Your task to perform on an android device: change your default location settings in chrome Image 0: 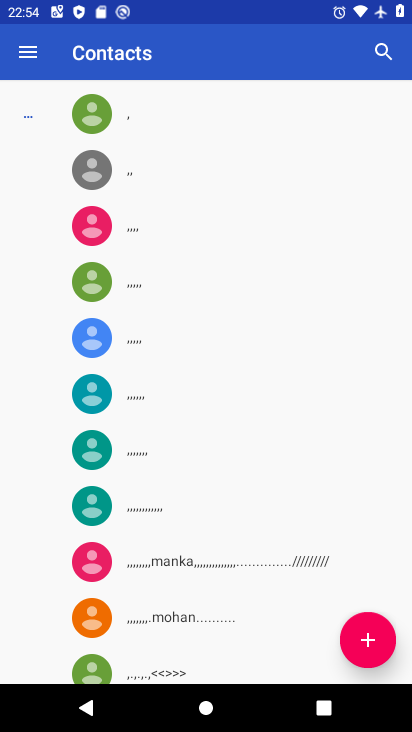
Step 0: press home button
Your task to perform on an android device: change your default location settings in chrome Image 1: 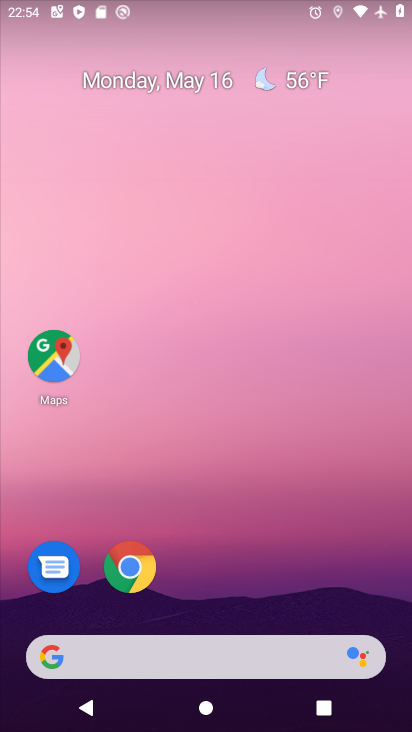
Step 1: drag from (247, 542) to (312, 262)
Your task to perform on an android device: change your default location settings in chrome Image 2: 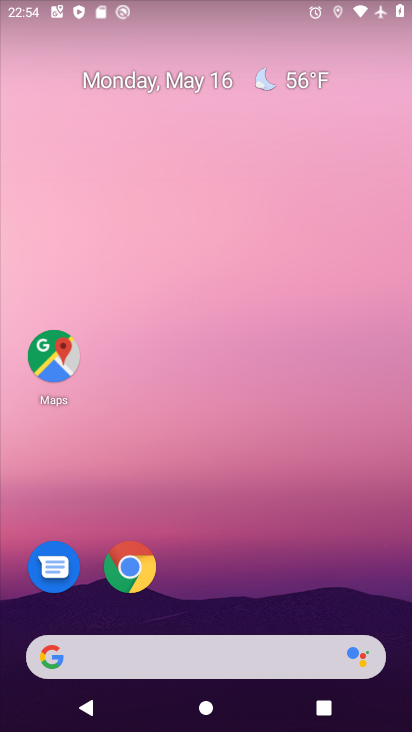
Step 2: drag from (252, 638) to (344, 200)
Your task to perform on an android device: change your default location settings in chrome Image 3: 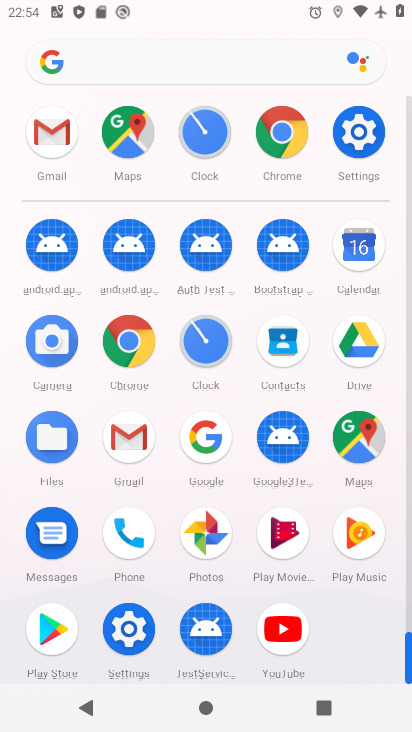
Step 3: click (265, 134)
Your task to perform on an android device: change your default location settings in chrome Image 4: 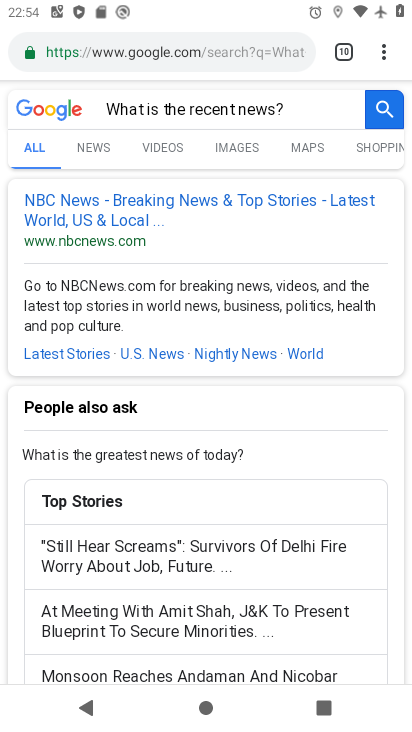
Step 4: click (382, 54)
Your task to perform on an android device: change your default location settings in chrome Image 5: 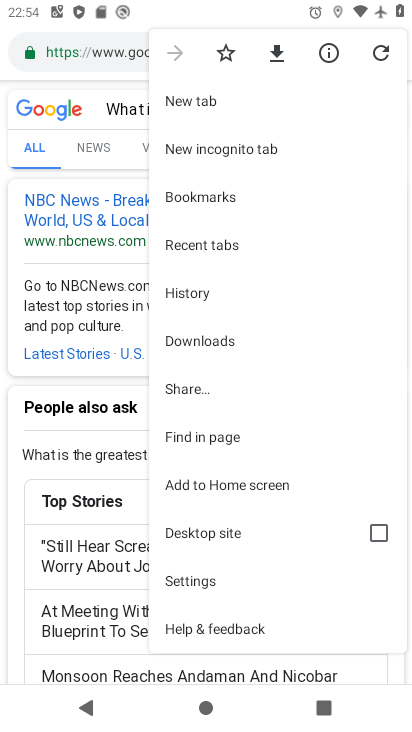
Step 5: click (201, 582)
Your task to perform on an android device: change your default location settings in chrome Image 6: 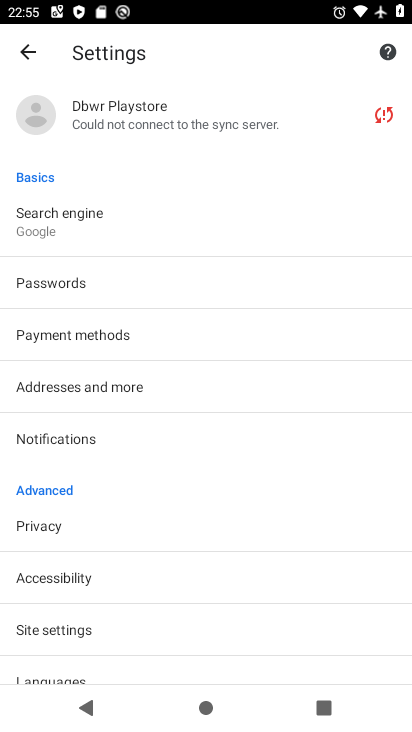
Step 6: click (102, 624)
Your task to perform on an android device: change your default location settings in chrome Image 7: 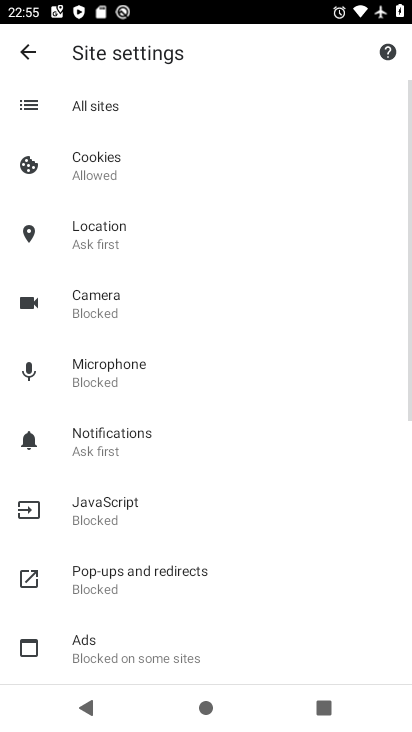
Step 7: click (94, 229)
Your task to perform on an android device: change your default location settings in chrome Image 8: 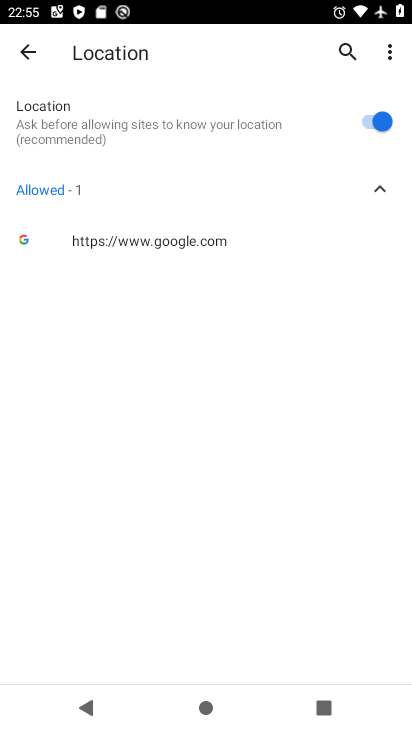
Step 8: click (357, 135)
Your task to perform on an android device: change your default location settings in chrome Image 9: 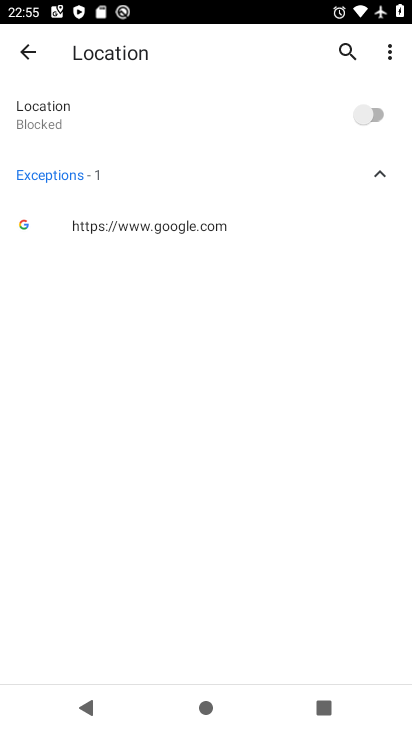
Step 9: task complete